Your task to perform on an android device: Open calendar and show me the second week of next month Image 0: 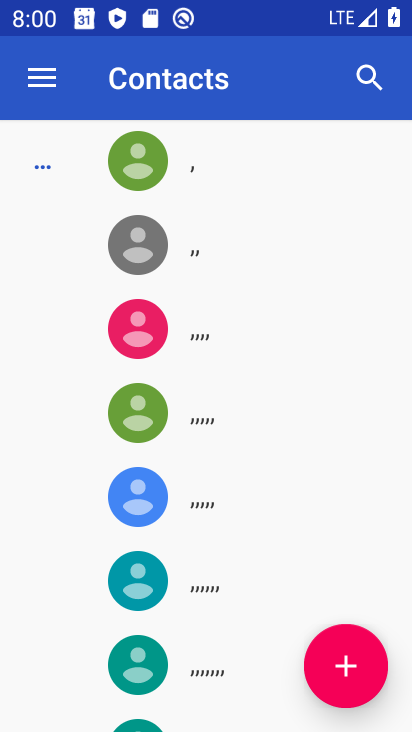
Step 0: press back button
Your task to perform on an android device: Open calendar and show me the second week of next month Image 1: 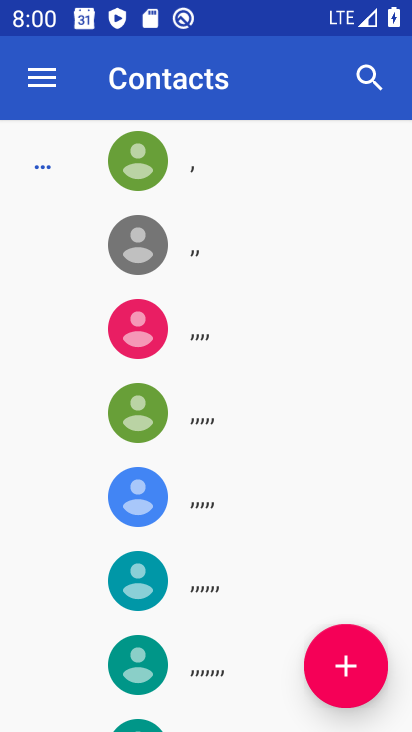
Step 1: press back button
Your task to perform on an android device: Open calendar and show me the second week of next month Image 2: 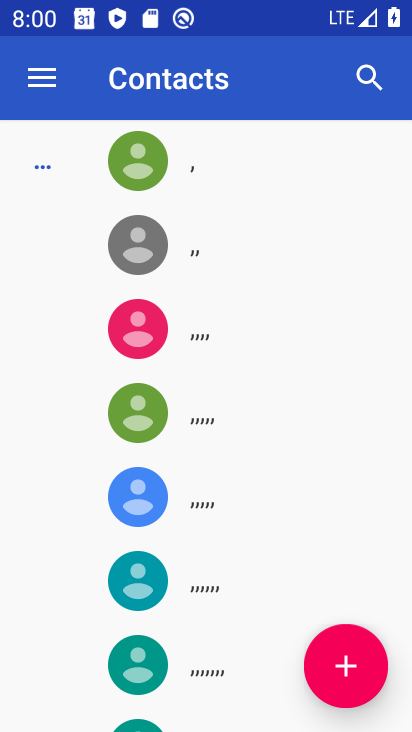
Step 2: press back button
Your task to perform on an android device: Open calendar and show me the second week of next month Image 3: 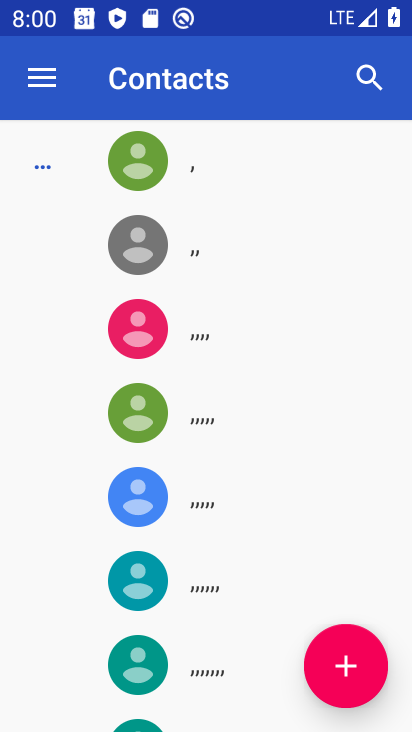
Step 3: press back button
Your task to perform on an android device: Open calendar and show me the second week of next month Image 4: 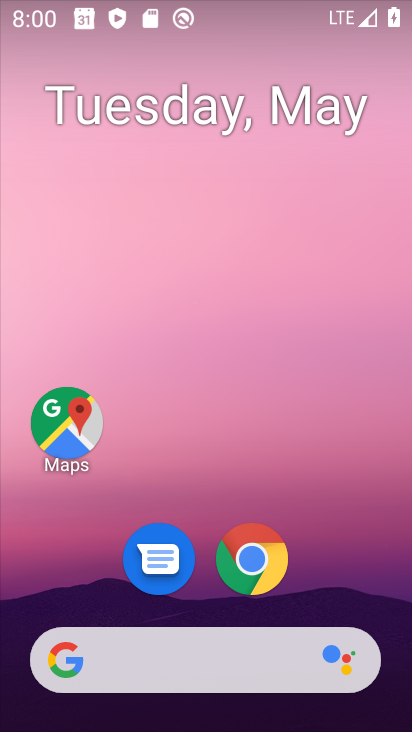
Step 4: drag from (387, 639) to (141, 137)
Your task to perform on an android device: Open calendar and show me the second week of next month Image 5: 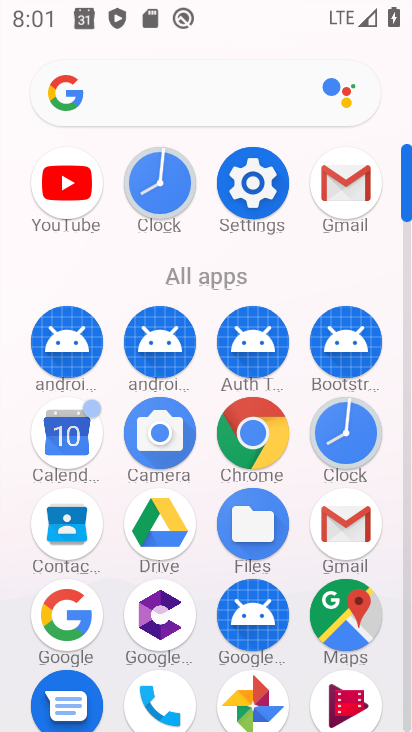
Step 5: click (78, 431)
Your task to perform on an android device: Open calendar and show me the second week of next month Image 6: 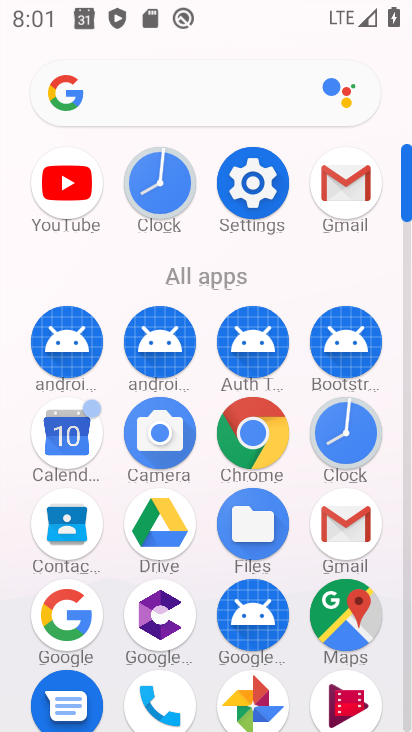
Step 6: click (74, 432)
Your task to perform on an android device: Open calendar and show me the second week of next month Image 7: 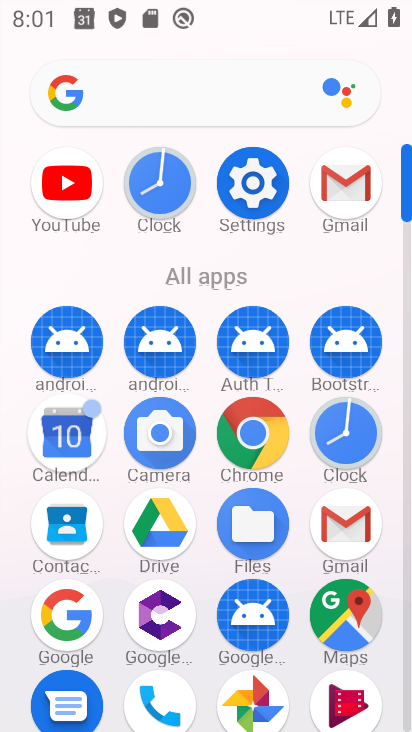
Step 7: click (77, 434)
Your task to perform on an android device: Open calendar and show me the second week of next month Image 8: 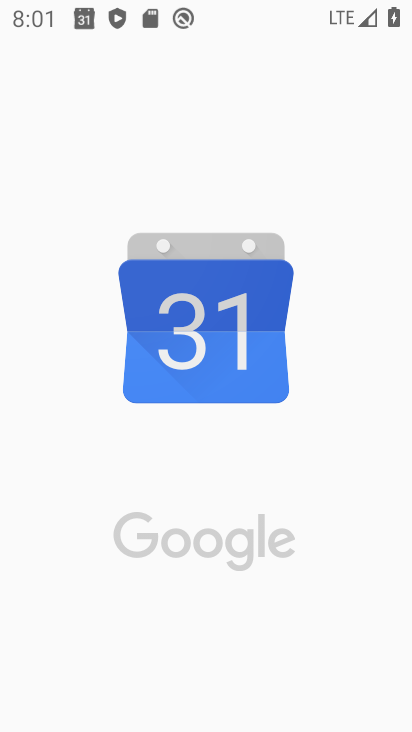
Step 8: click (84, 431)
Your task to perform on an android device: Open calendar and show me the second week of next month Image 9: 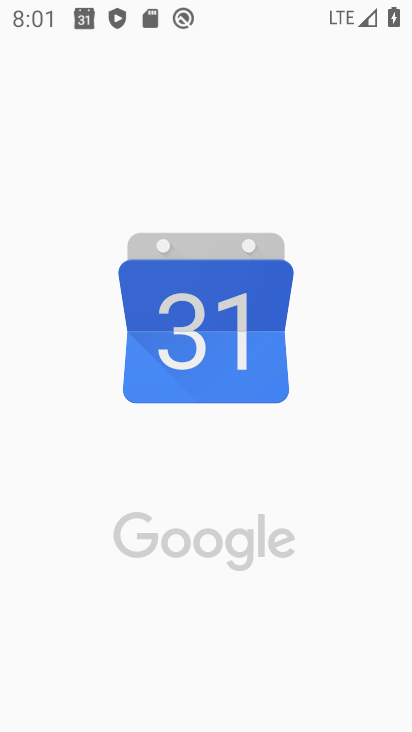
Step 9: click (84, 431)
Your task to perform on an android device: Open calendar and show me the second week of next month Image 10: 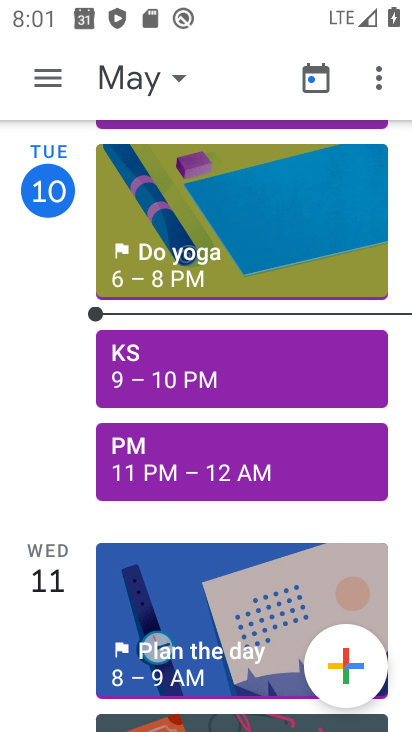
Step 10: click (181, 79)
Your task to perform on an android device: Open calendar and show me the second week of next month Image 11: 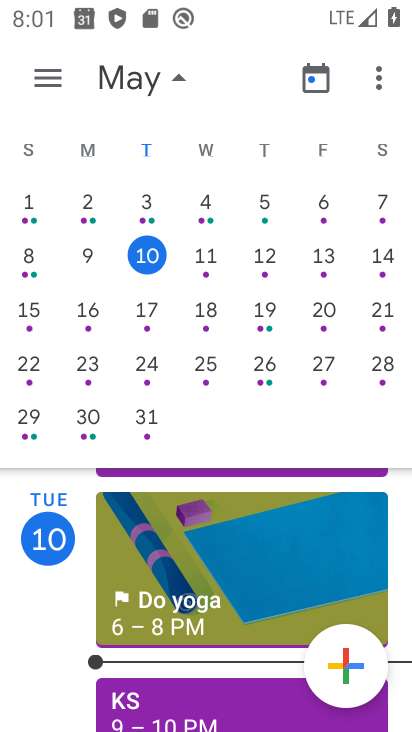
Step 11: drag from (320, 266) to (53, 345)
Your task to perform on an android device: Open calendar and show me the second week of next month Image 12: 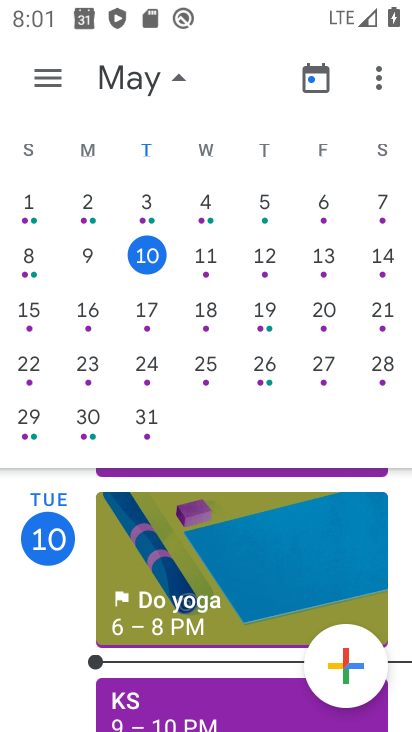
Step 12: drag from (315, 302) to (81, 247)
Your task to perform on an android device: Open calendar and show me the second week of next month Image 13: 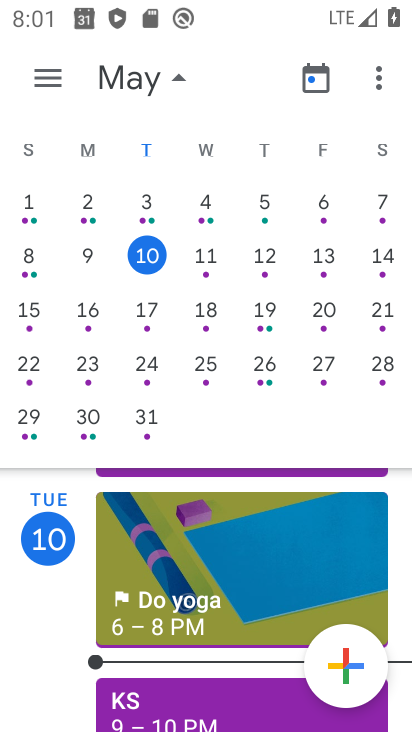
Step 13: drag from (364, 305) to (0, 278)
Your task to perform on an android device: Open calendar and show me the second week of next month Image 14: 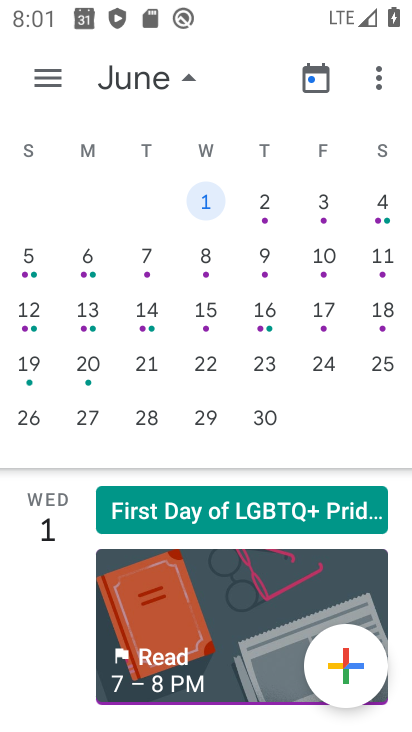
Step 14: drag from (308, 266) to (19, 314)
Your task to perform on an android device: Open calendar and show me the second week of next month Image 15: 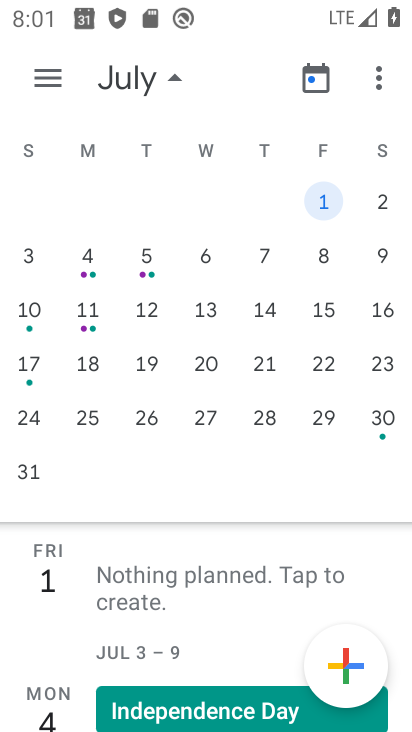
Step 15: drag from (106, 343) to (408, 334)
Your task to perform on an android device: Open calendar and show me the second week of next month Image 16: 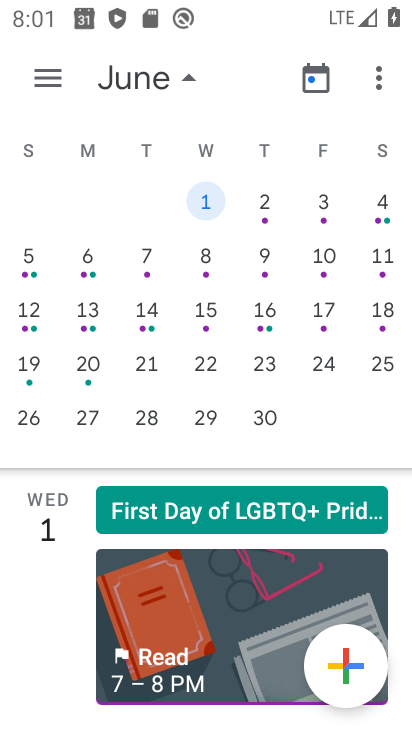
Step 16: click (205, 260)
Your task to perform on an android device: Open calendar and show me the second week of next month Image 17: 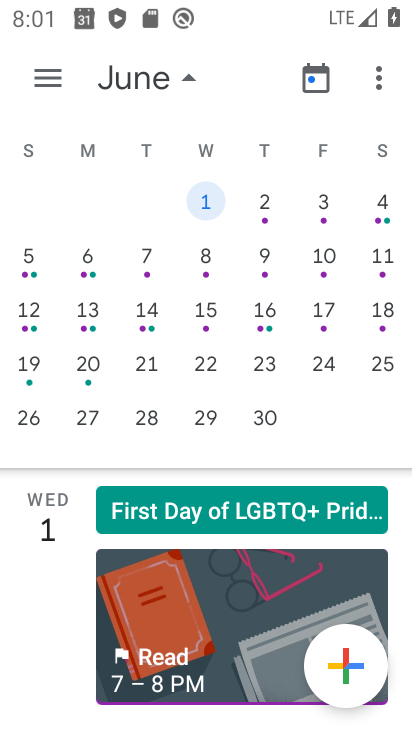
Step 17: click (206, 257)
Your task to perform on an android device: Open calendar and show me the second week of next month Image 18: 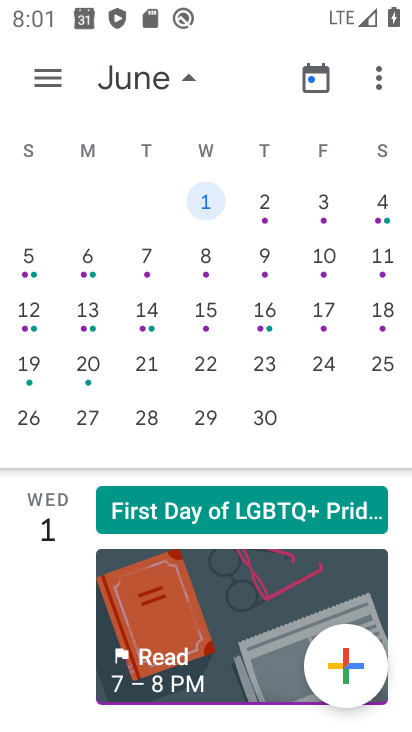
Step 18: click (208, 256)
Your task to perform on an android device: Open calendar and show me the second week of next month Image 19: 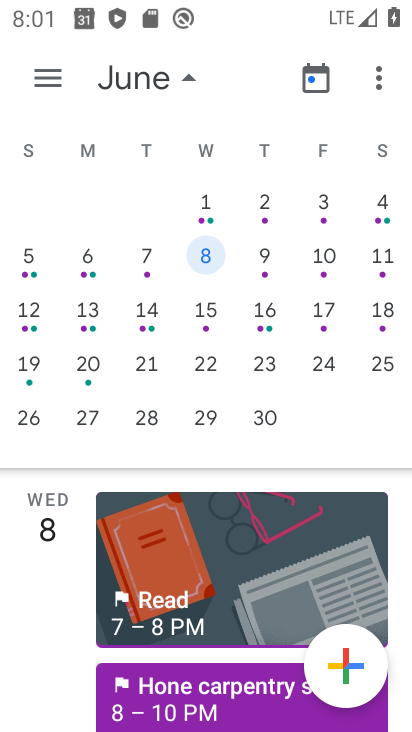
Step 19: click (209, 255)
Your task to perform on an android device: Open calendar and show me the second week of next month Image 20: 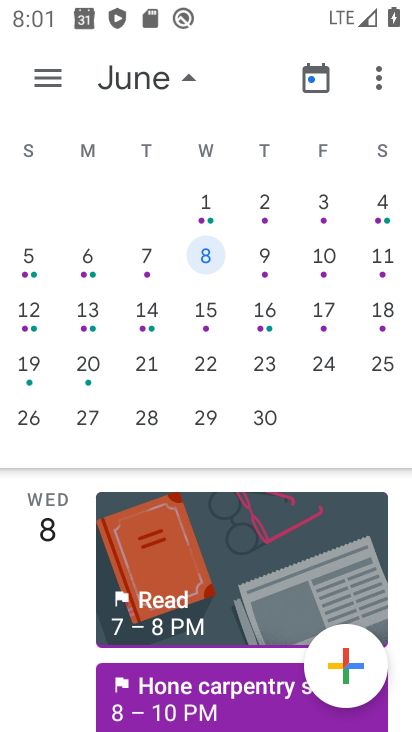
Step 20: task complete